Your task to perform on an android device: Open Google Maps Image 0: 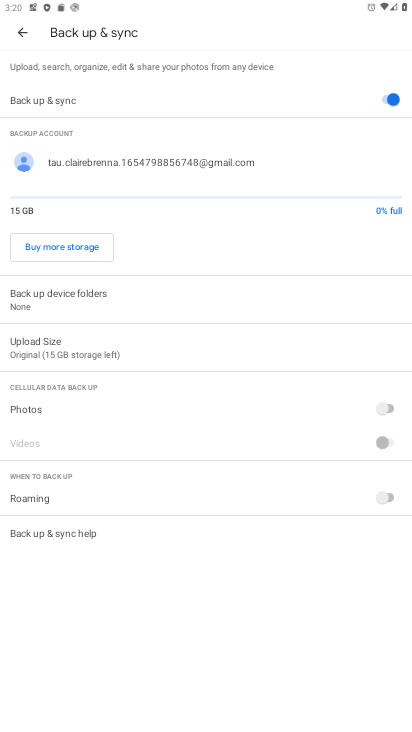
Step 0: press home button
Your task to perform on an android device: Open Google Maps Image 1: 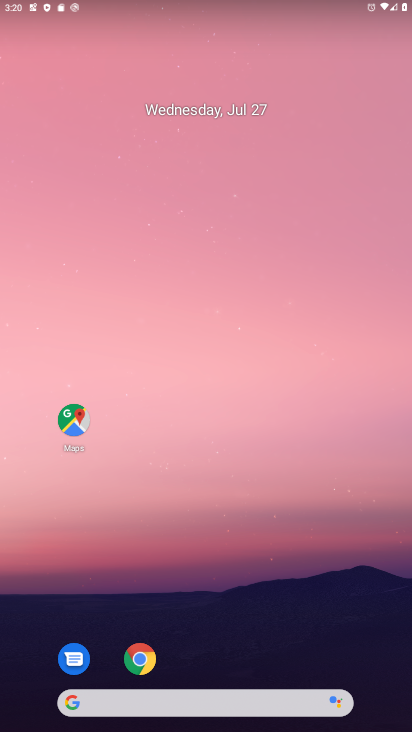
Step 1: click (69, 422)
Your task to perform on an android device: Open Google Maps Image 2: 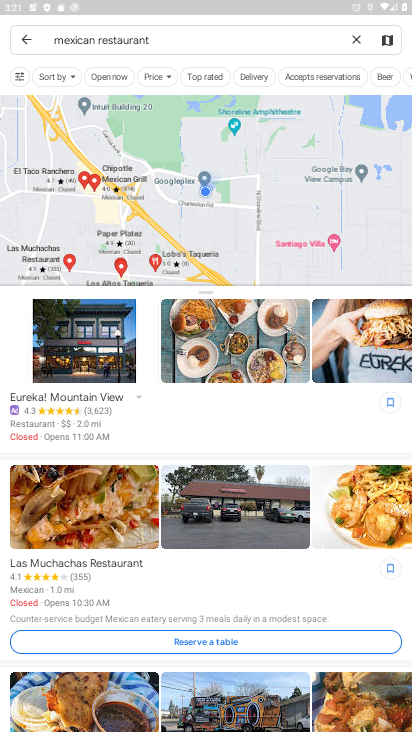
Step 2: task complete